Your task to perform on an android device: Open Google Maps Image 0: 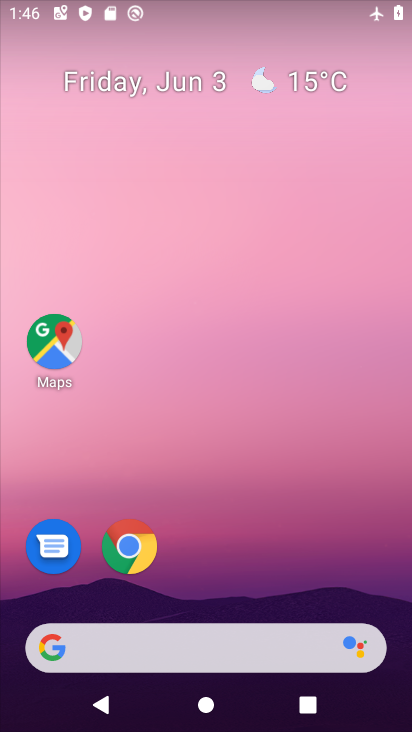
Step 0: drag from (320, 545) to (341, 0)
Your task to perform on an android device: Open Google Maps Image 1: 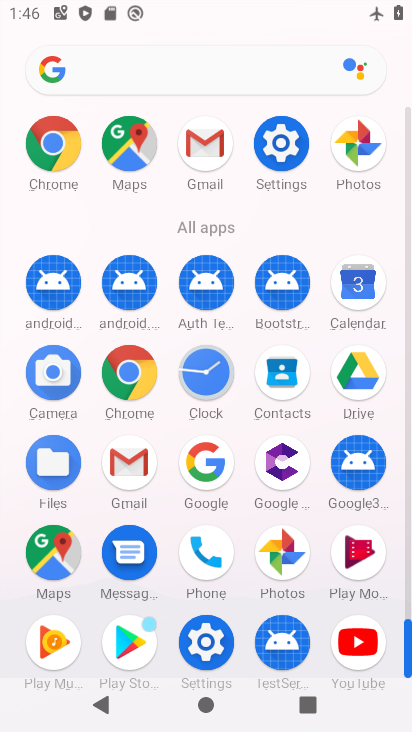
Step 1: click (135, 137)
Your task to perform on an android device: Open Google Maps Image 2: 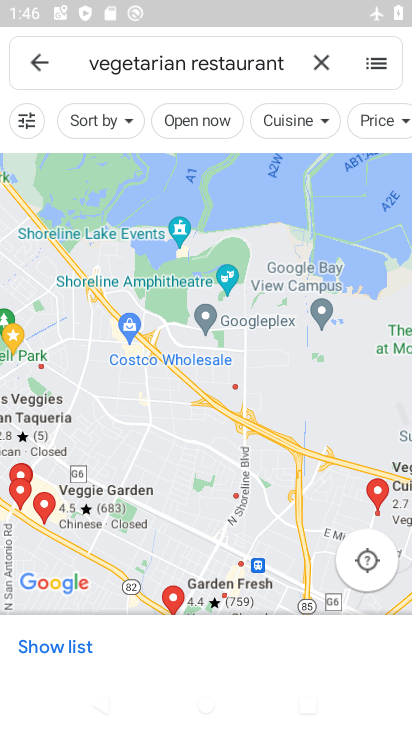
Step 2: task complete